Your task to perform on an android device: turn off javascript in the chrome app Image 0: 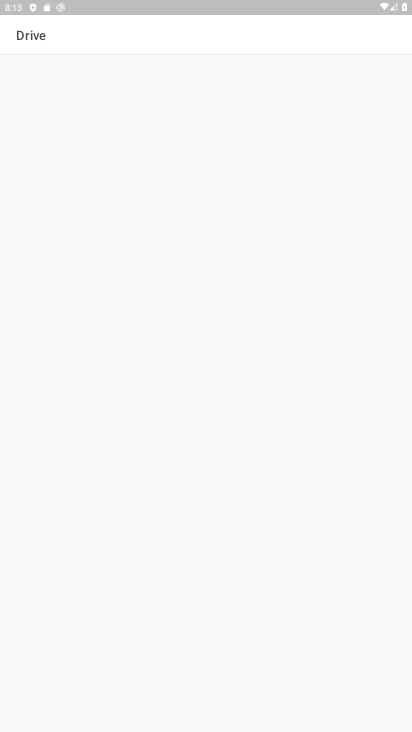
Step 0: press home button
Your task to perform on an android device: turn off javascript in the chrome app Image 1: 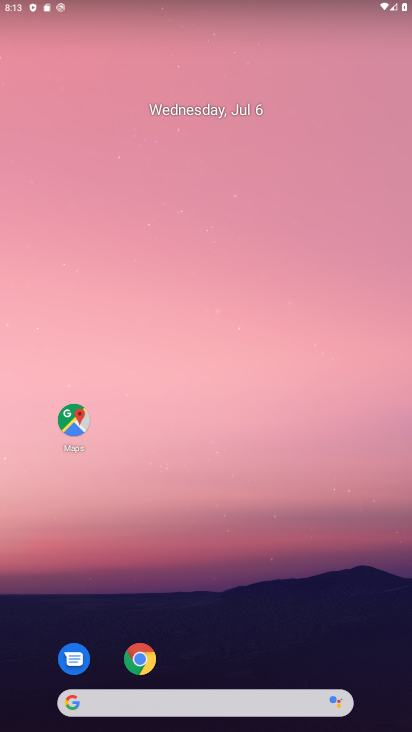
Step 1: click (136, 668)
Your task to perform on an android device: turn off javascript in the chrome app Image 2: 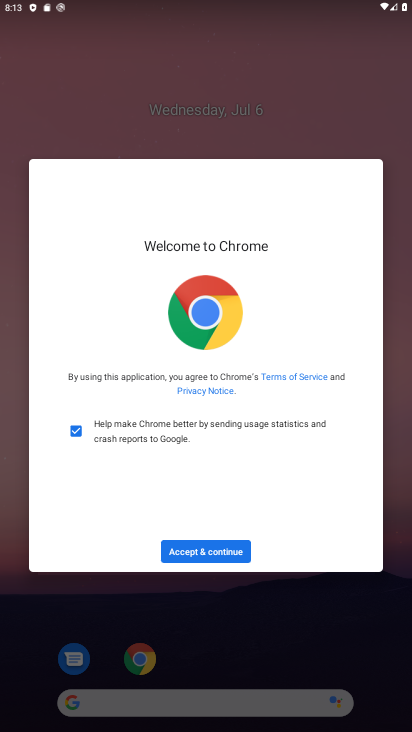
Step 2: click (194, 541)
Your task to perform on an android device: turn off javascript in the chrome app Image 3: 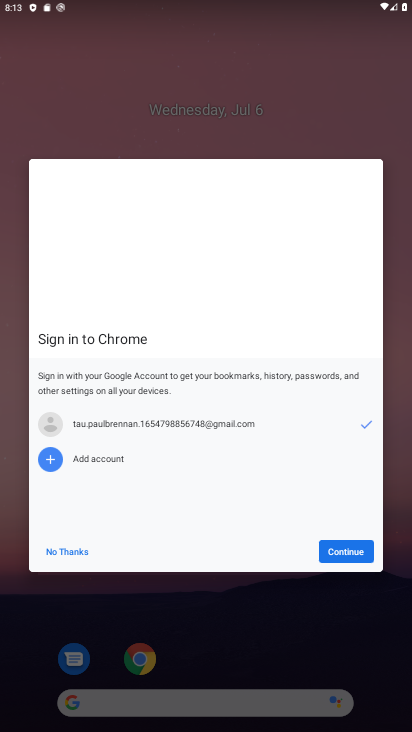
Step 3: click (352, 552)
Your task to perform on an android device: turn off javascript in the chrome app Image 4: 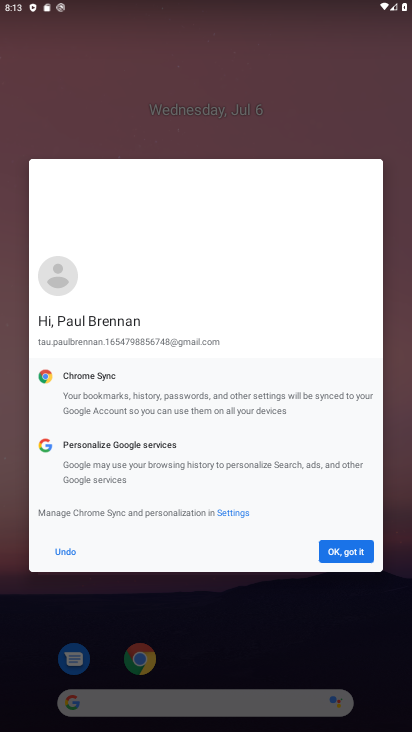
Step 4: click (352, 551)
Your task to perform on an android device: turn off javascript in the chrome app Image 5: 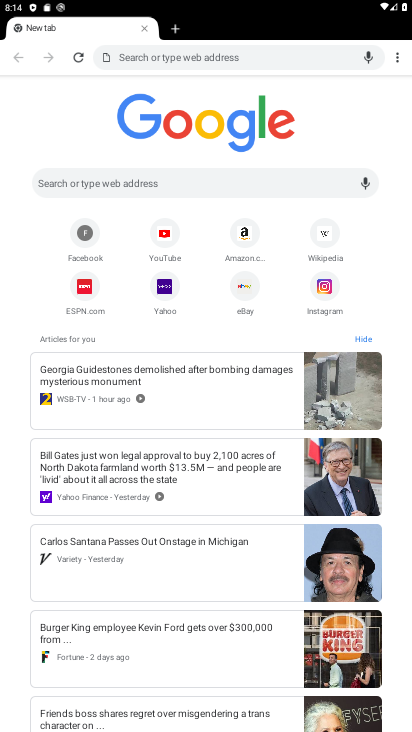
Step 5: click (396, 60)
Your task to perform on an android device: turn off javascript in the chrome app Image 6: 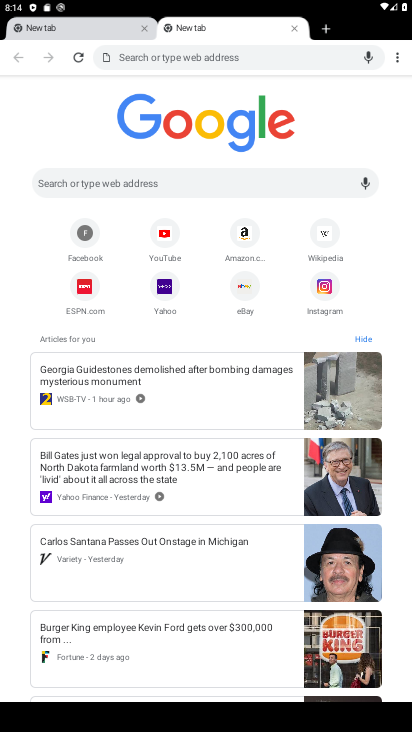
Step 6: click (396, 60)
Your task to perform on an android device: turn off javascript in the chrome app Image 7: 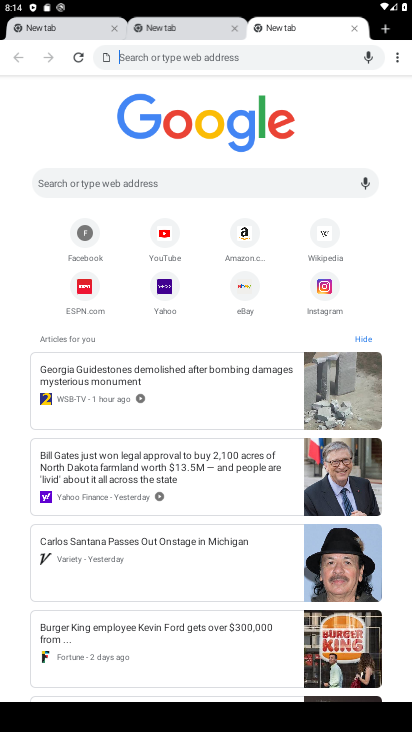
Step 7: click (396, 58)
Your task to perform on an android device: turn off javascript in the chrome app Image 8: 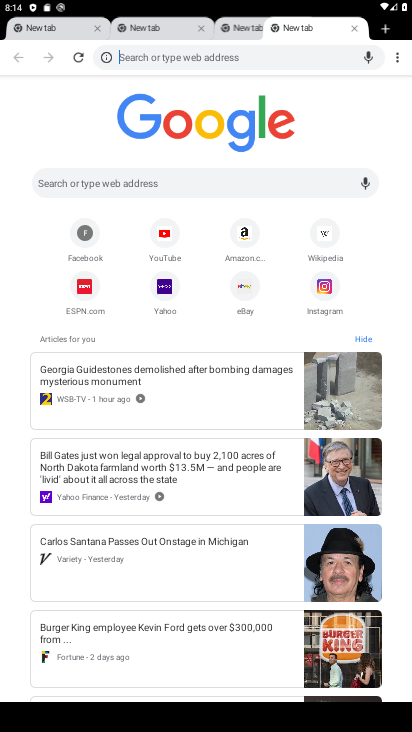
Step 8: click (396, 58)
Your task to perform on an android device: turn off javascript in the chrome app Image 9: 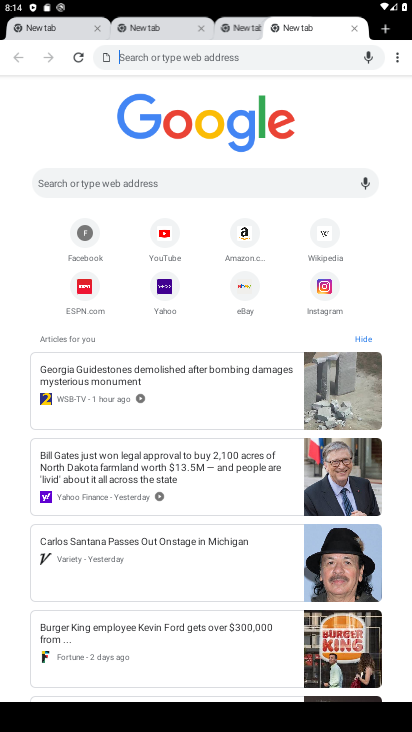
Step 9: click (396, 58)
Your task to perform on an android device: turn off javascript in the chrome app Image 10: 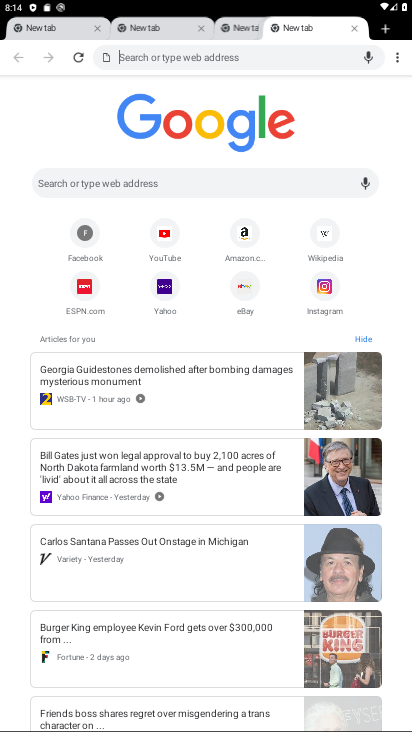
Step 10: click (396, 58)
Your task to perform on an android device: turn off javascript in the chrome app Image 11: 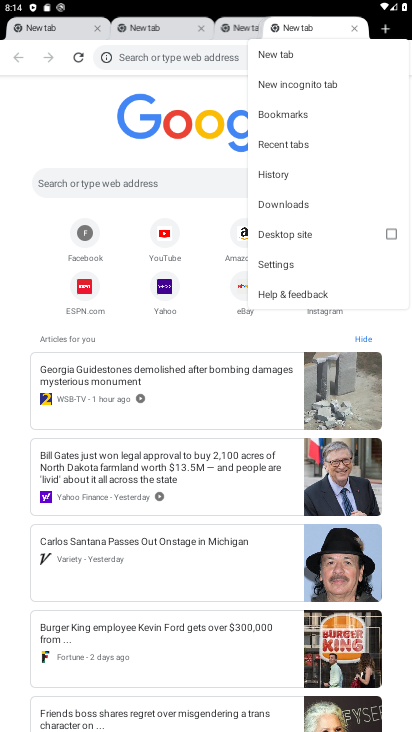
Step 11: click (271, 274)
Your task to perform on an android device: turn off javascript in the chrome app Image 12: 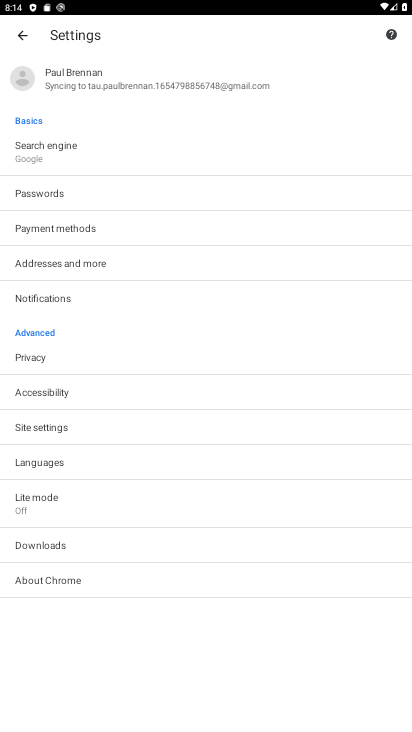
Step 12: click (42, 429)
Your task to perform on an android device: turn off javascript in the chrome app Image 13: 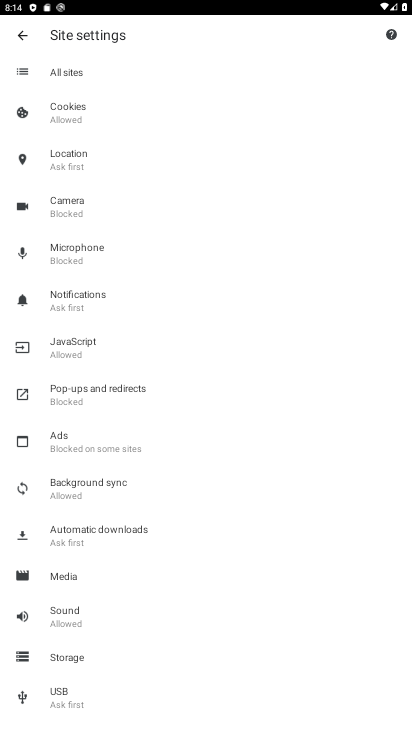
Step 13: click (80, 346)
Your task to perform on an android device: turn off javascript in the chrome app Image 14: 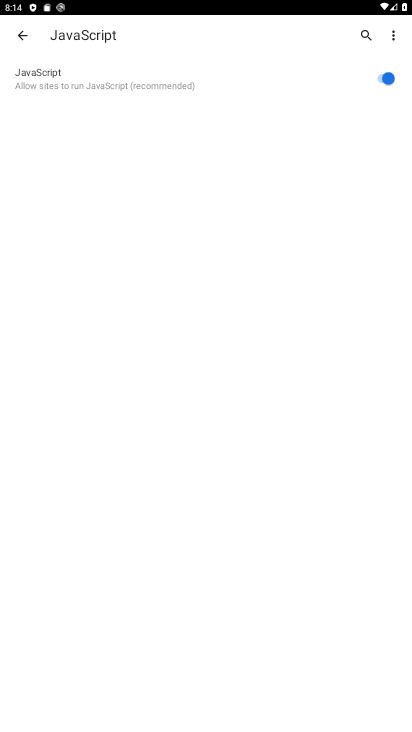
Step 14: click (383, 79)
Your task to perform on an android device: turn off javascript in the chrome app Image 15: 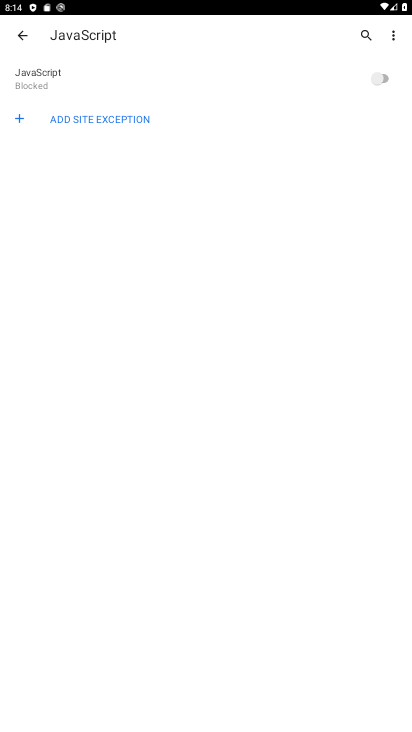
Step 15: task complete